Your task to perform on an android device: snooze an email in the gmail app Image 0: 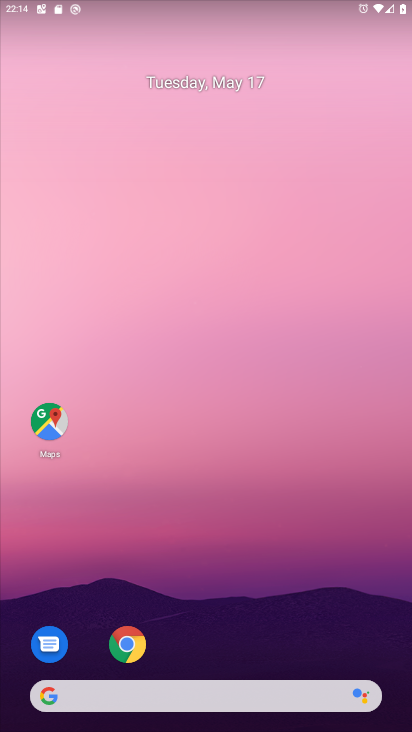
Step 0: press home button
Your task to perform on an android device: snooze an email in the gmail app Image 1: 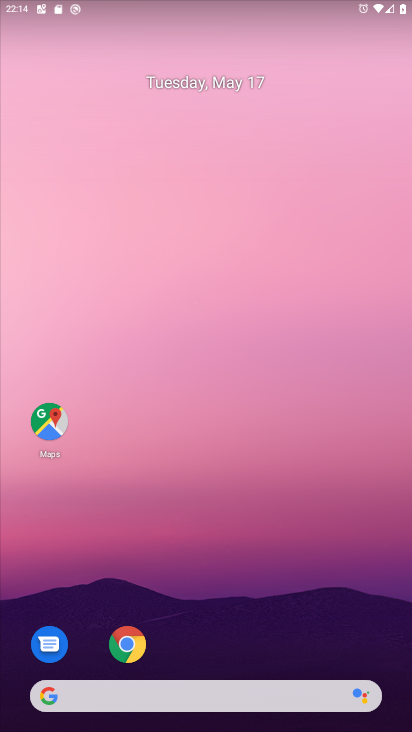
Step 1: drag from (196, 657) to (258, 196)
Your task to perform on an android device: snooze an email in the gmail app Image 2: 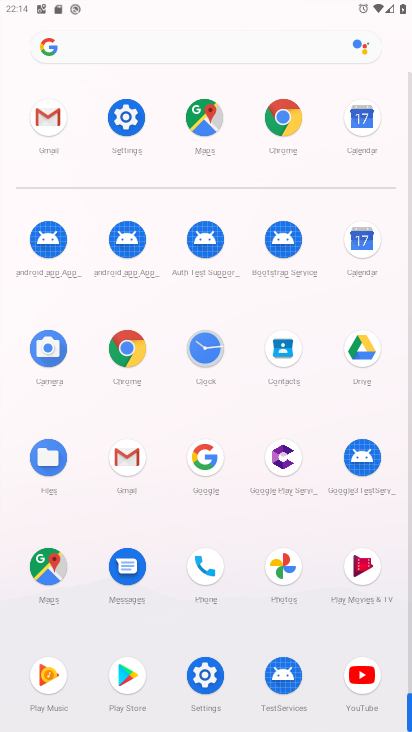
Step 2: click (134, 450)
Your task to perform on an android device: snooze an email in the gmail app Image 3: 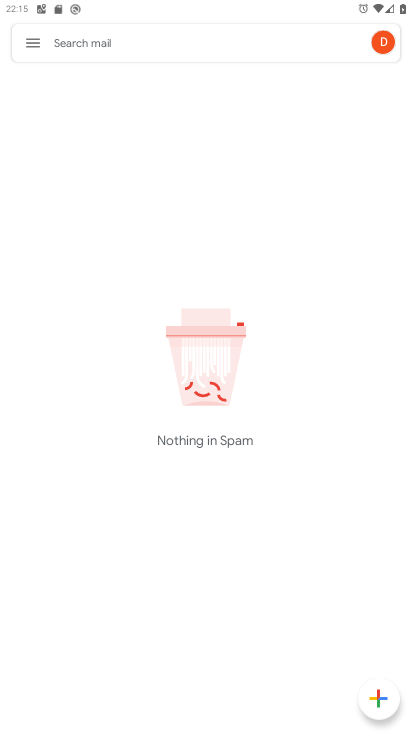
Step 3: click (25, 35)
Your task to perform on an android device: snooze an email in the gmail app Image 4: 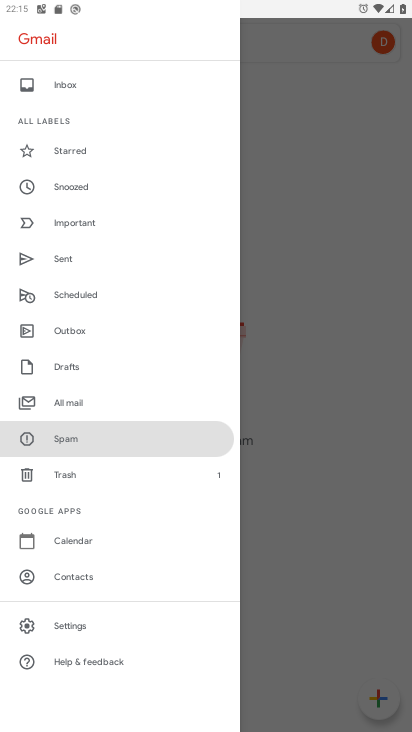
Step 4: click (90, 398)
Your task to perform on an android device: snooze an email in the gmail app Image 5: 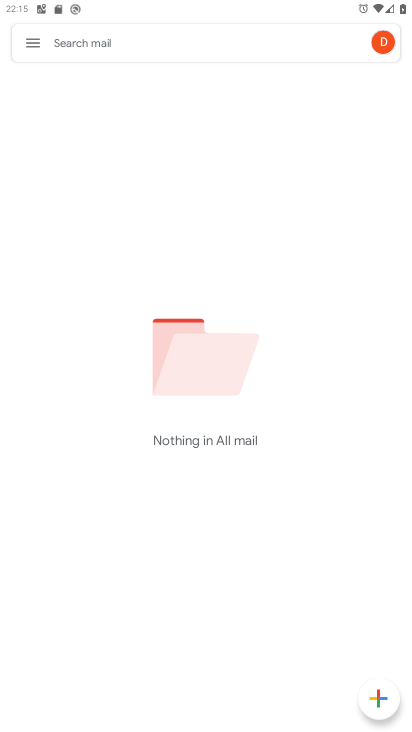
Step 5: task complete